Your task to perform on an android device: turn off notifications settings in the gmail app Image 0: 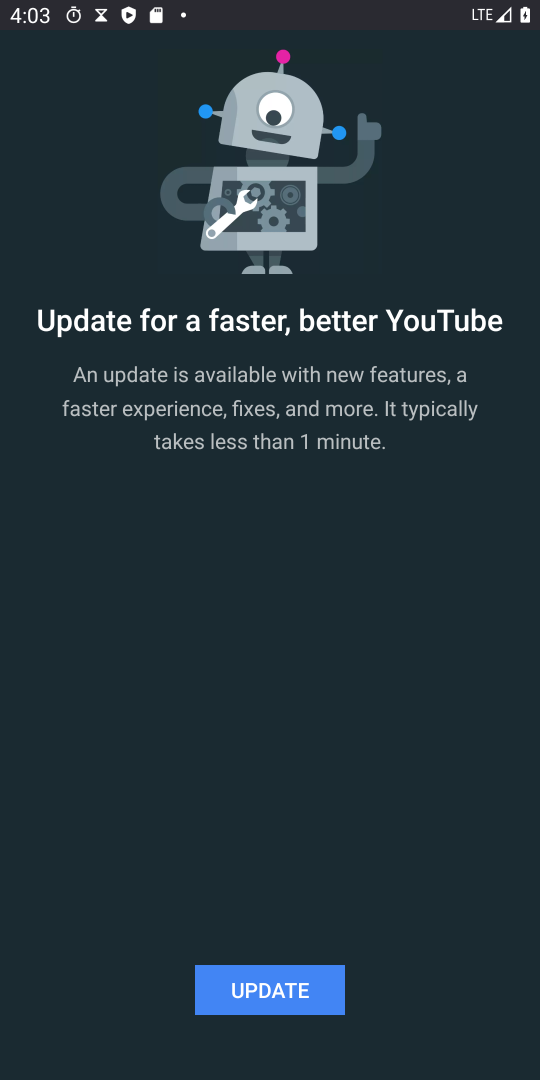
Step 0: press home button
Your task to perform on an android device: turn off notifications settings in the gmail app Image 1: 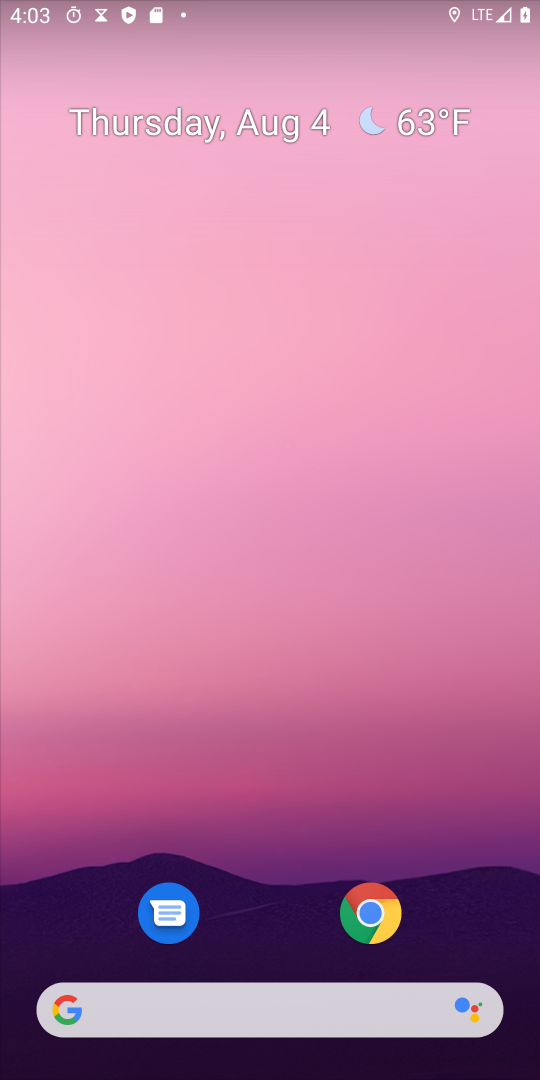
Step 1: drag from (357, 883) to (406, 7)
Your task to perform on an android device: turn off notifications settings in the gmail app Image 2: 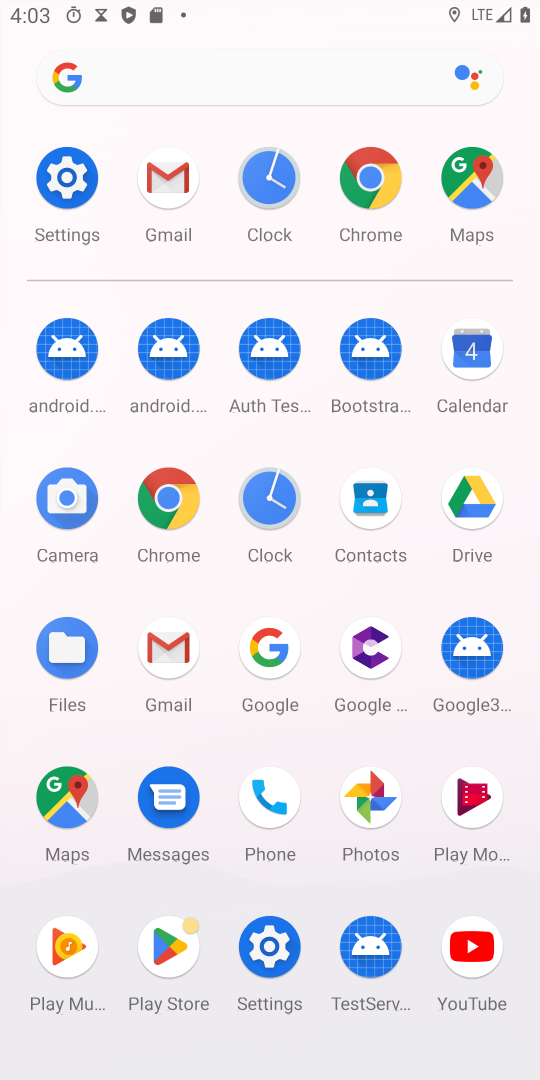
Step 2: click (171, 635)
Your task to perform on an android device: turn off notifications settings in the gmail app Image 3: 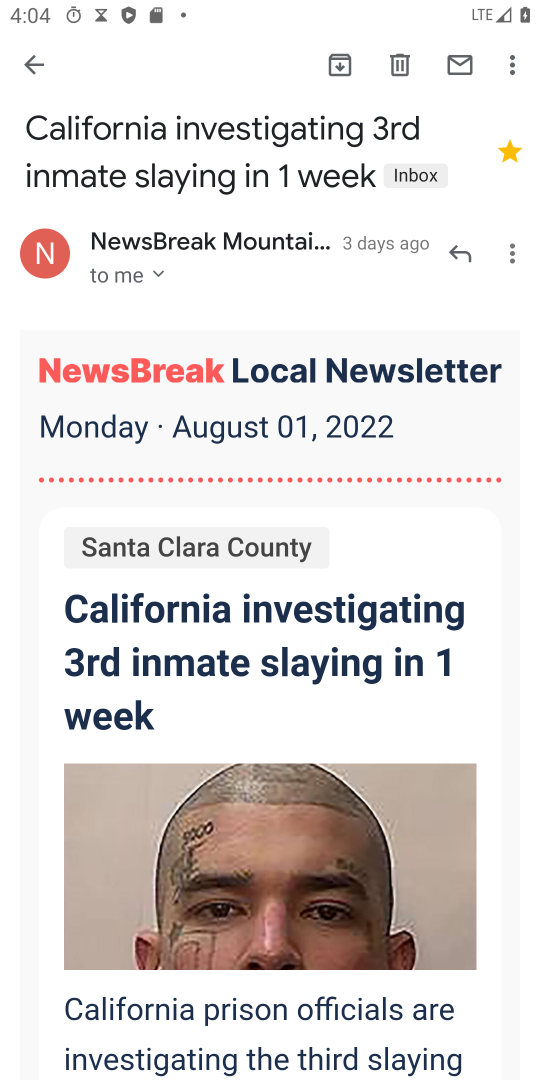
Step 3: click (520, 71)
Your task to perform on an android device: turn off notifications settings in the gmail app Image 4: 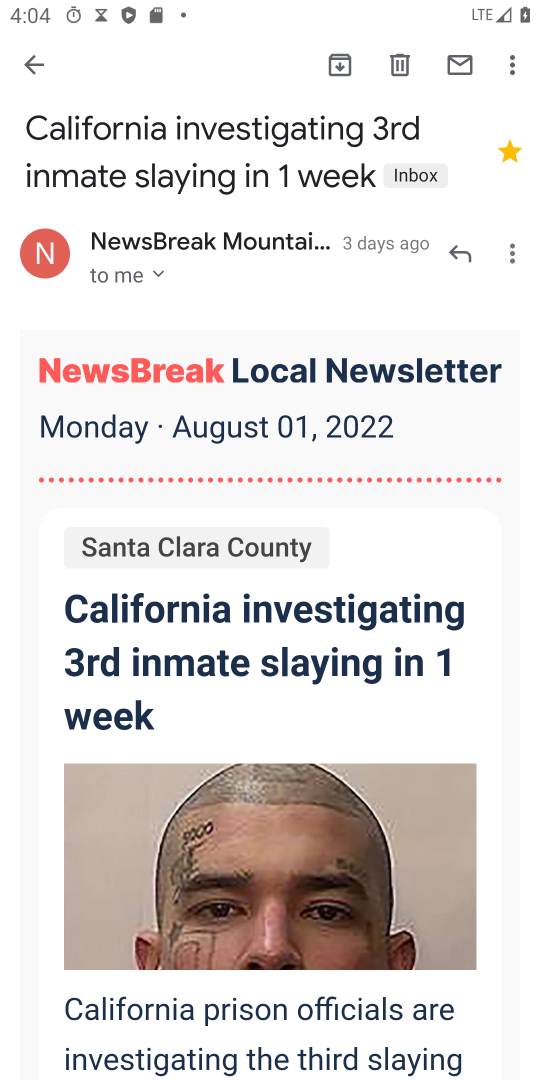
Step 4: press back button
Your task to perform on an android device: turn off notifications settings in the gmail app Image 5: 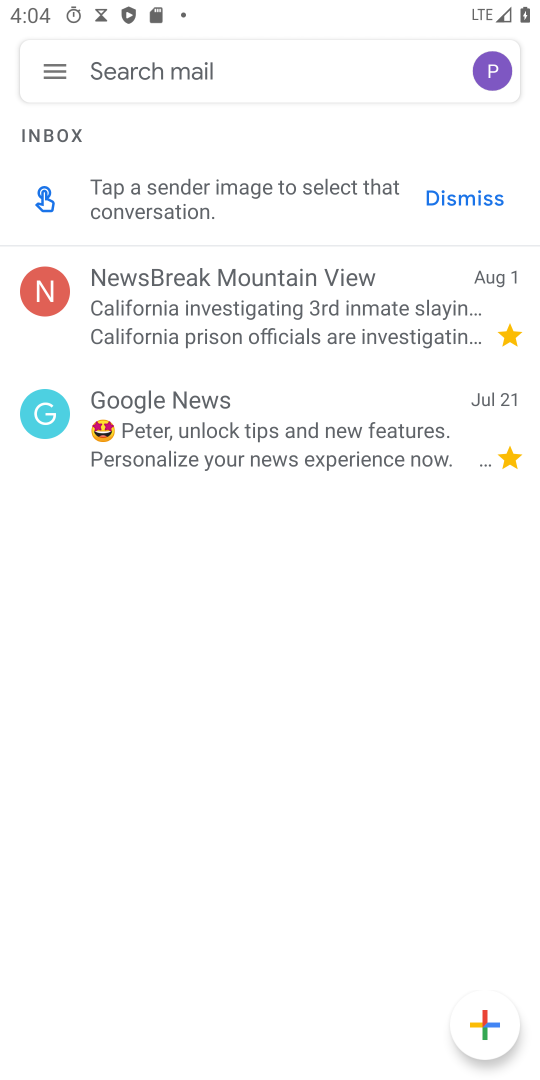
Step 5: click (73, 63)
Your task to perform on an android device: turn off notifications settings in the gmail app Image 6: 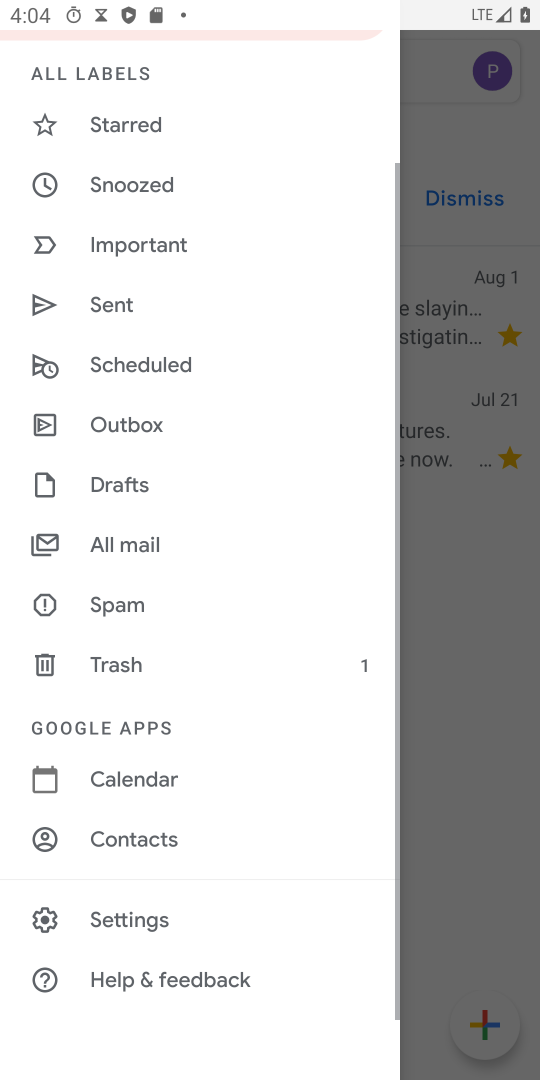
Step 6: click (145, 921)
Your task to perform on an android device: turn off notifications settings in the gmail app Image 7: 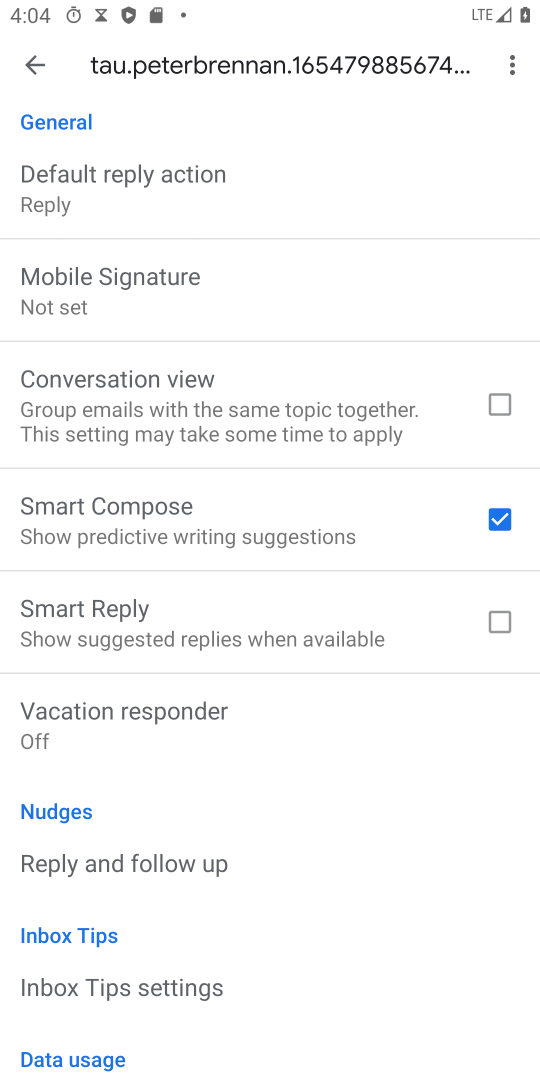
Step 7: drag from (168, 224) to (99, 897)
Your task to perform on an android device: turn off notifications settings in the gmail app Image 8: 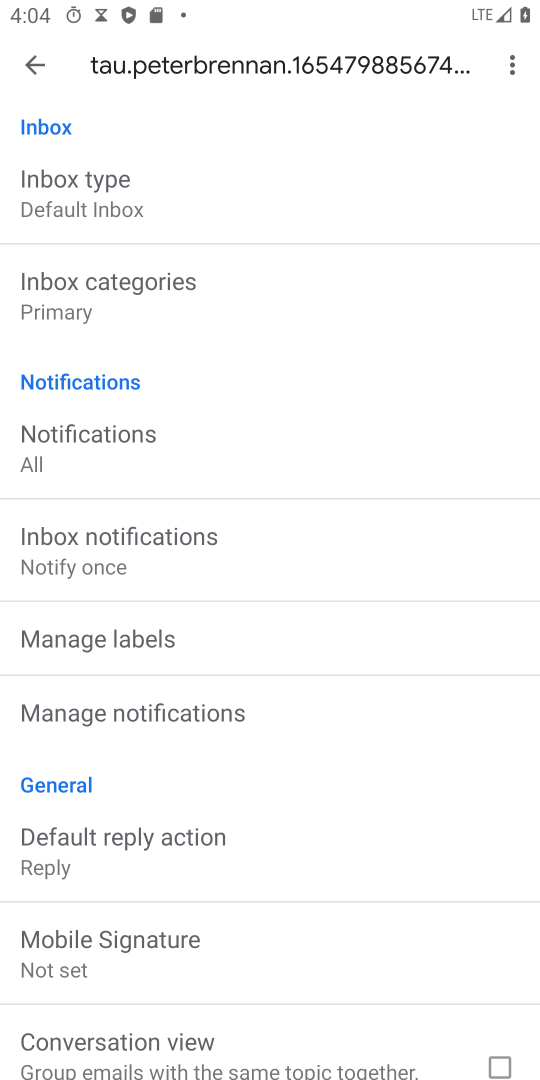
Step 8: click (112, 721)
Your task to perform on an android device: turn off notifications settings in the gmail app Image 9: 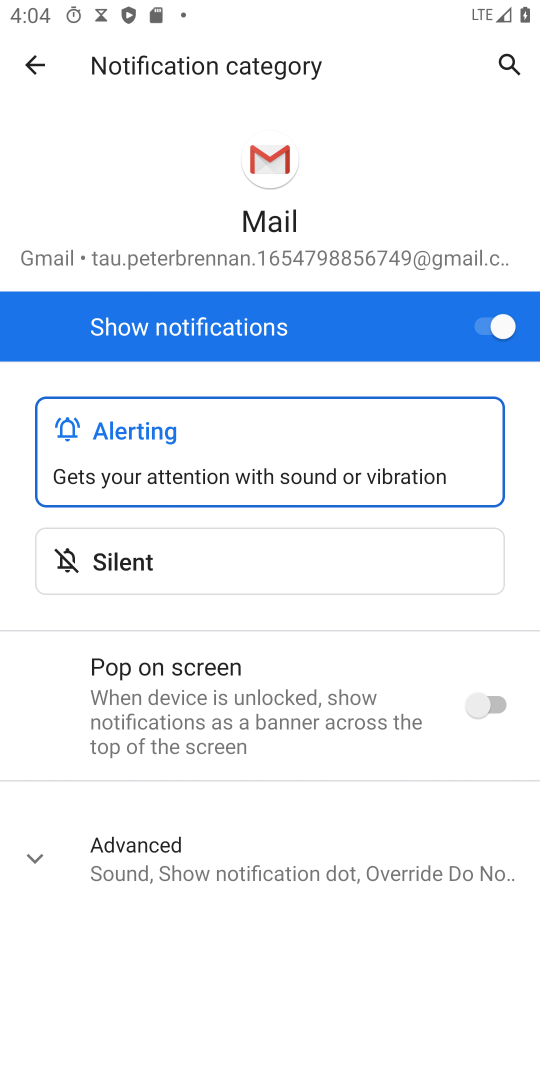
Step 9: click (485, 328)
Your task to perform on an android device: turn off notifications settings in the gmail app Image 10: 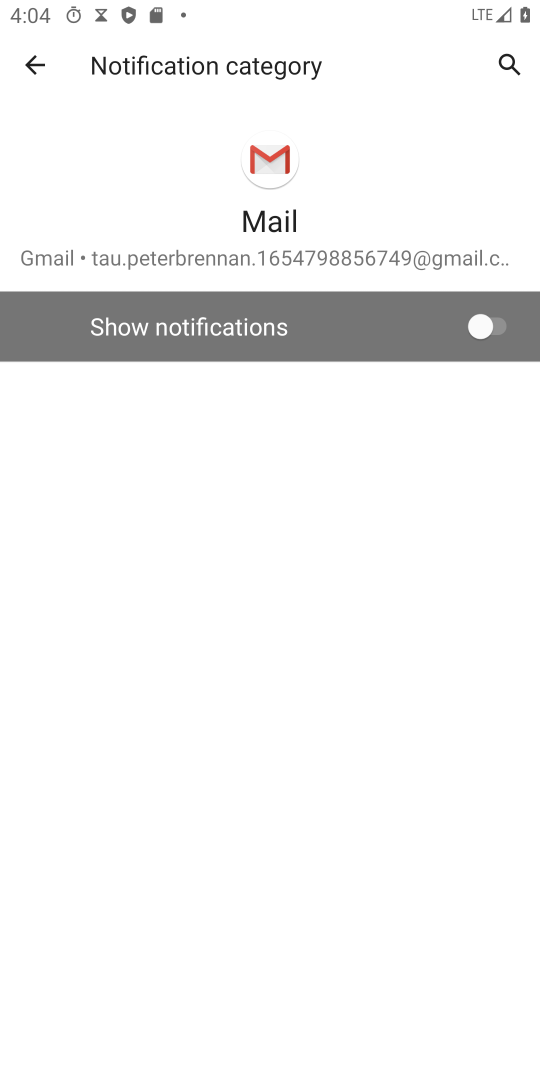
Step 10: task complete